Your task to perform on an android device: open app "DoorDash - Dasher" Image 0: 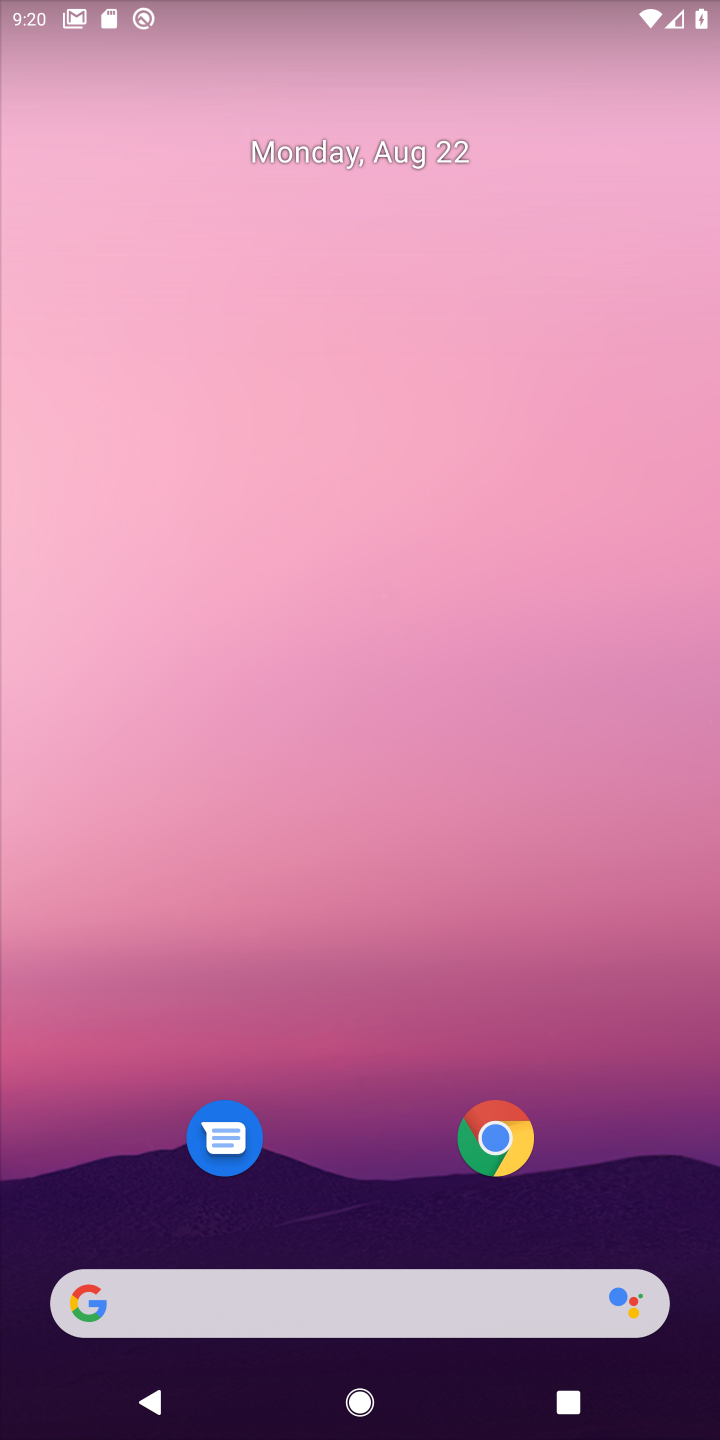
Step 0: drag from (384, 1209) to (365, 298)
Your task to perform on an android device: open app "DoorDash - Dasher" Image 1: 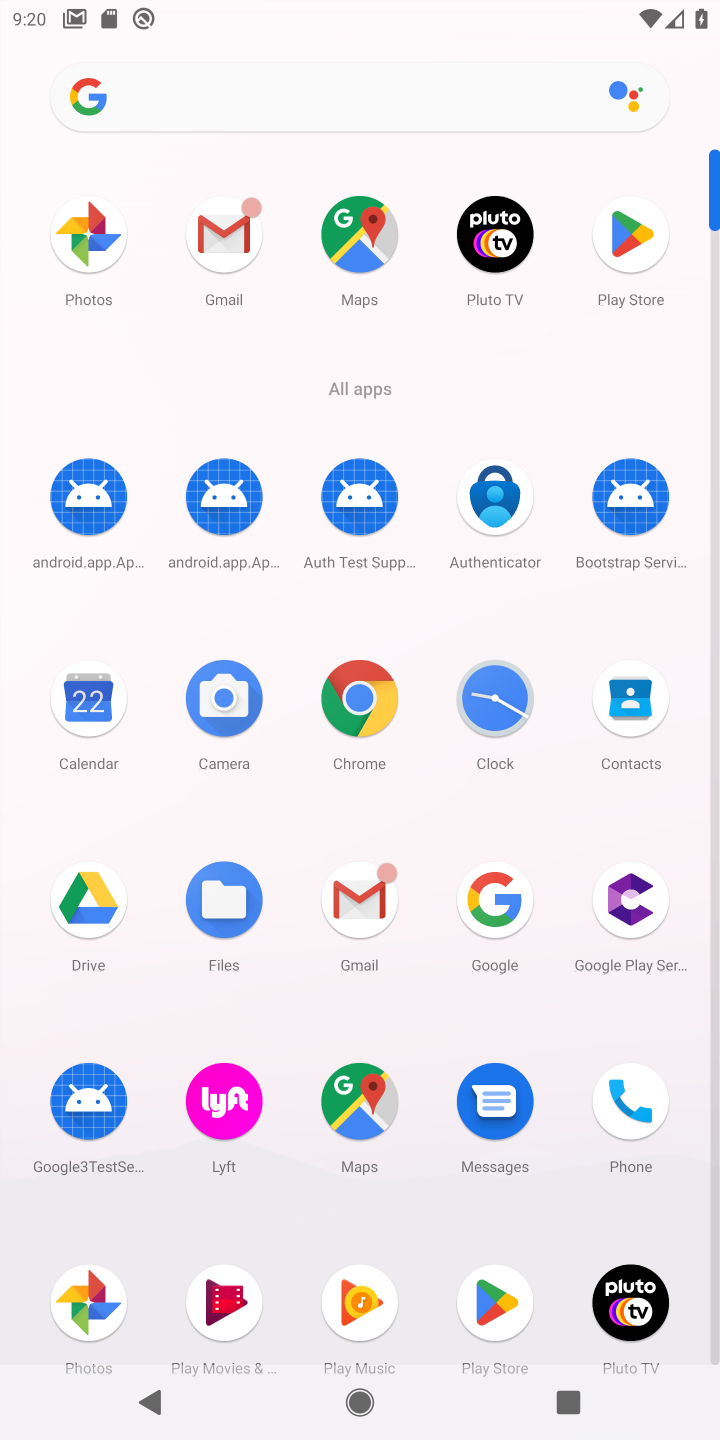
Step 1: click (471, 1297)
Your task to perform on an android device: open app "DoorDash - Dasher" Image 2: 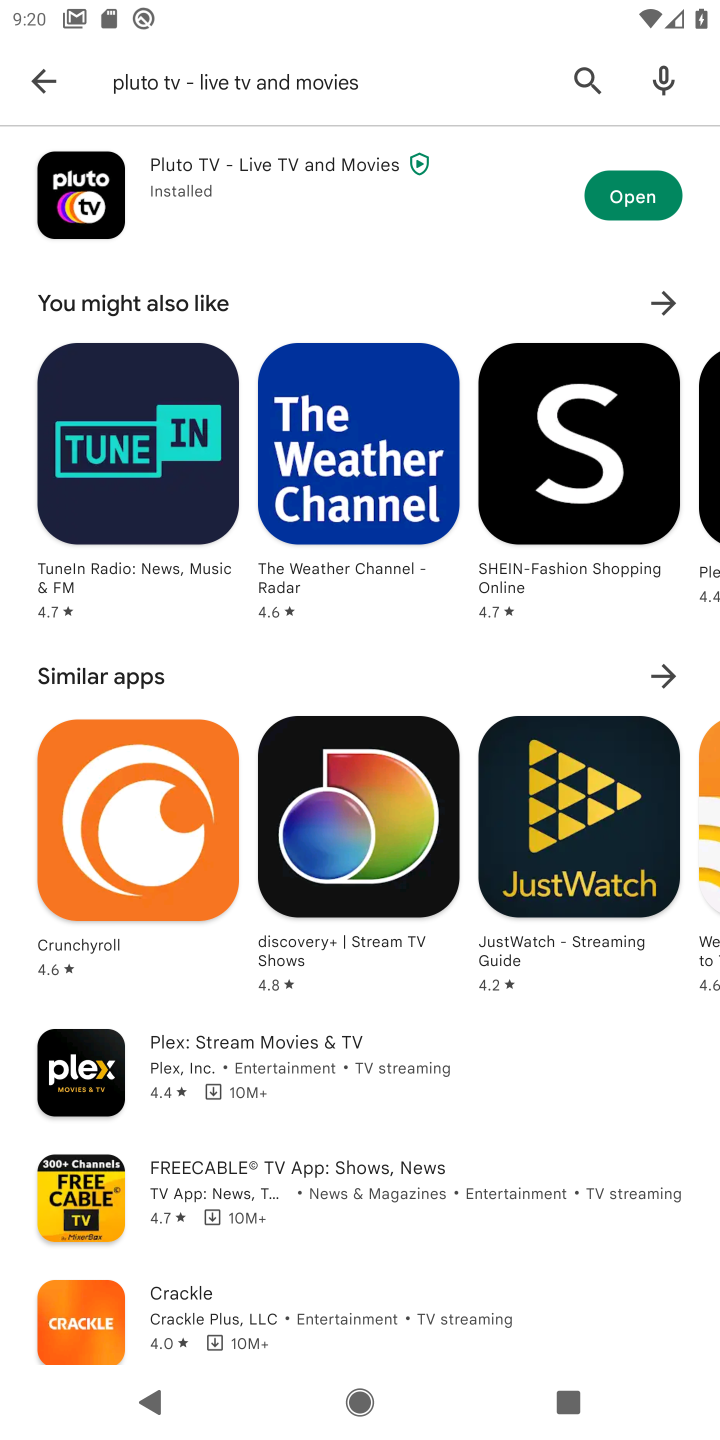
Step 2: click (31, 82)
Your task to perform on an android device: open app "DoorDash - Dasher" Image 3: 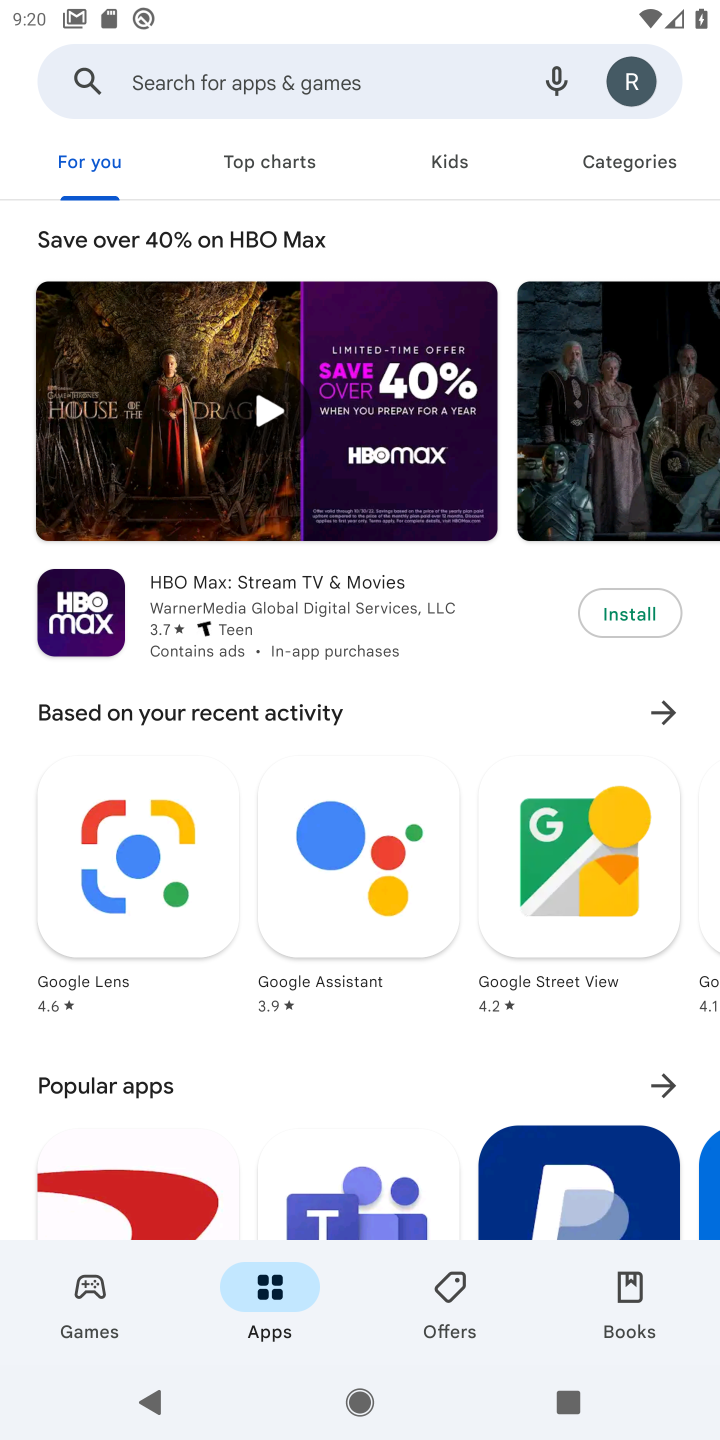
Step 3: click (343, 75)
Your task to perform on an android device: open app "DoorDash - Dasher" Image 4: 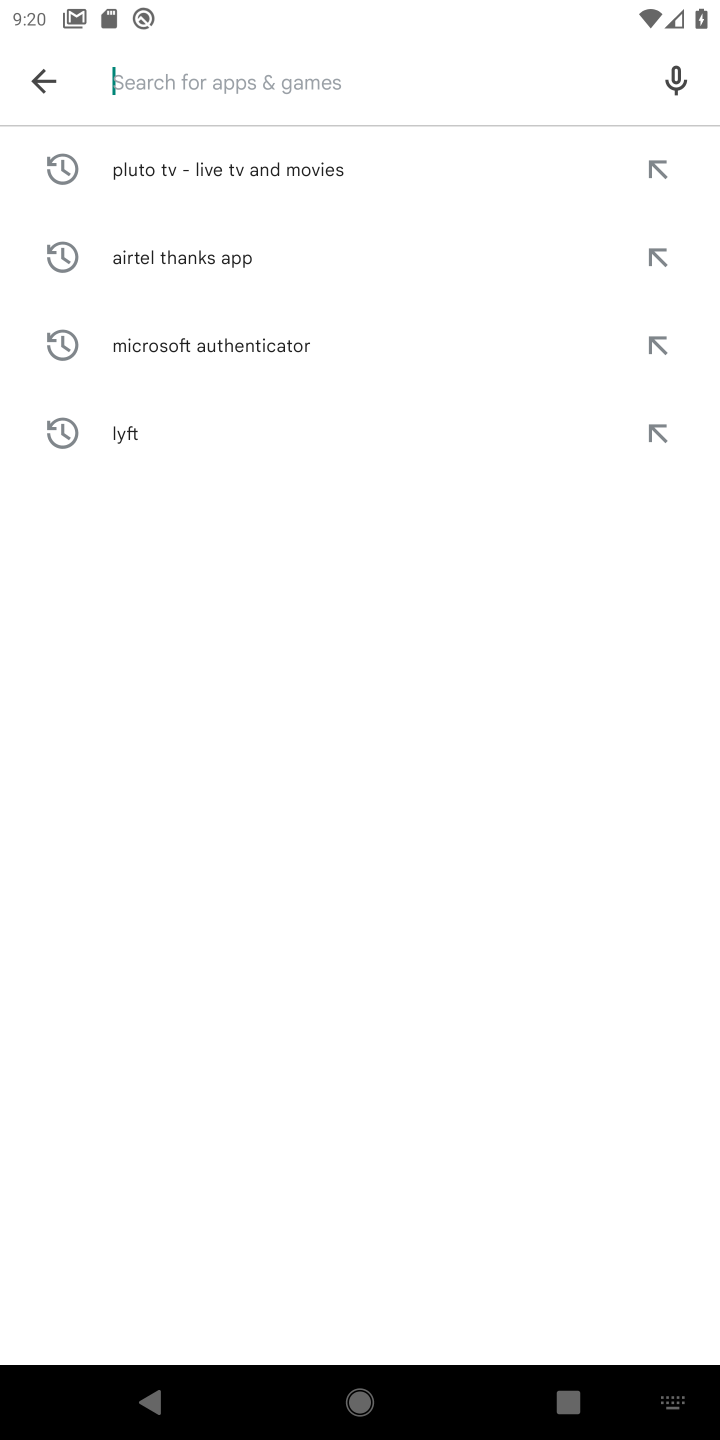
Step 4: drag from (588, 1326) to (666, 1402)
Your task to perform on an android device: open app "DoorDash - Dasher" Image 5: 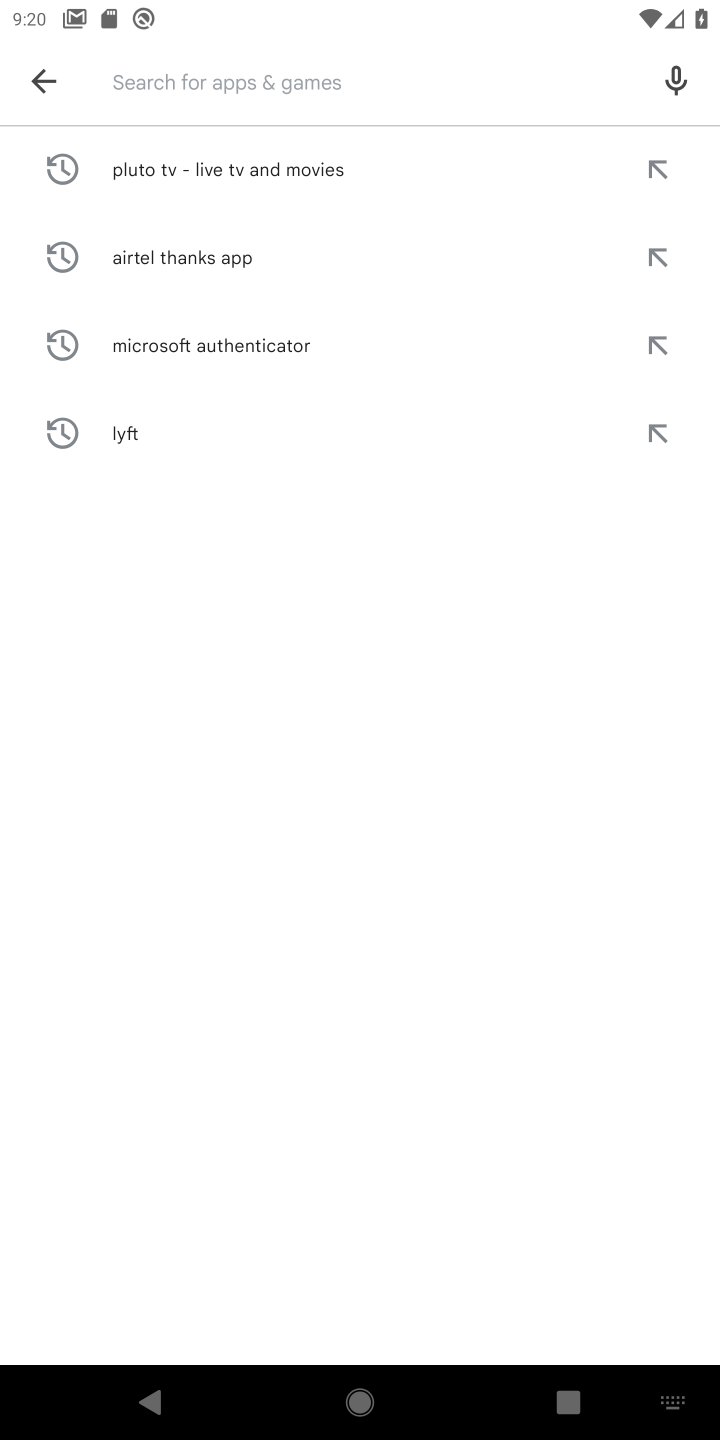
Step 5: type "DoorDash"
Your task to perform on an android device: open app "DoorDash - Dasher" Image 6: 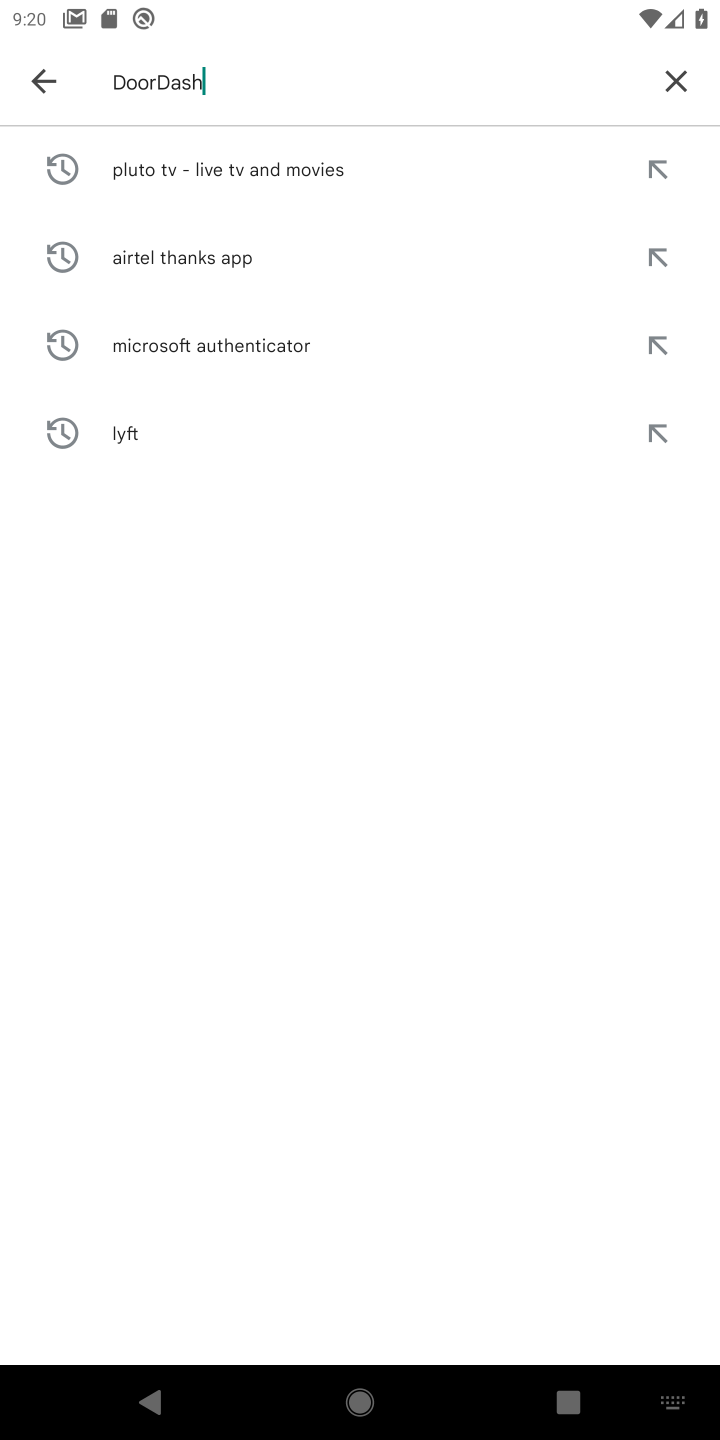
Step 6: type ""
Your task to perform on an android device: open app "DoorDash - Dasher" Image 7: 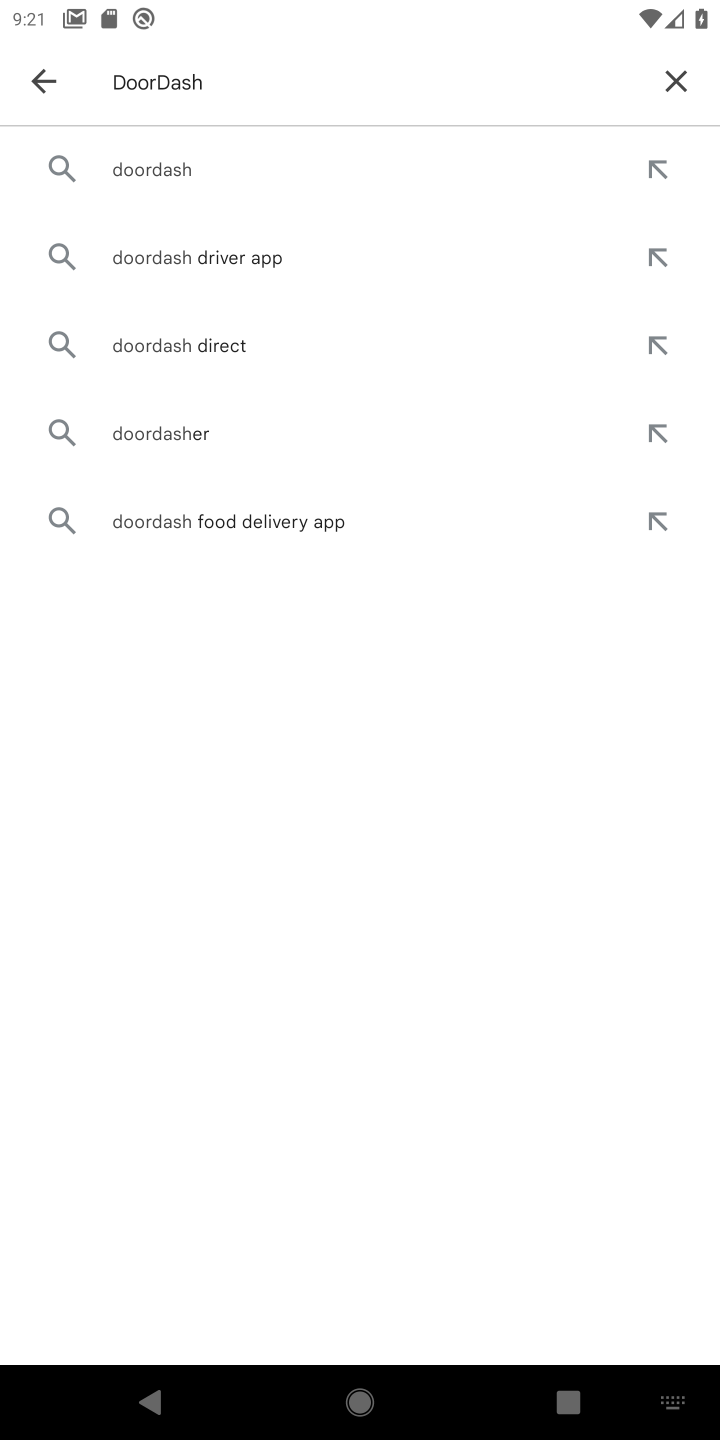
Step 7: click (168, 150)
Your task to perform on an android device: open app "DoorDash - Dasher" Image 8: 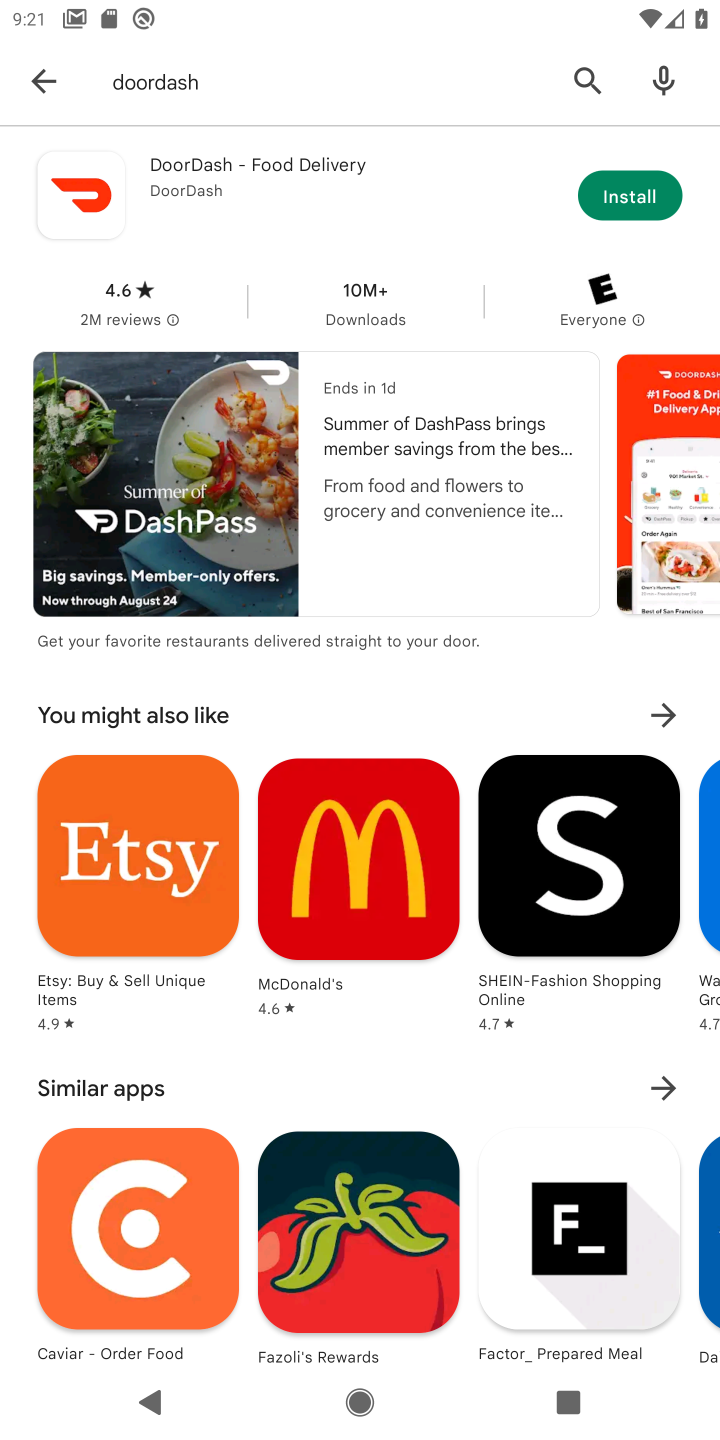
Step 8: click (624, 198)
Your task to perform on an android device: open app "DoorDash - Dasher" Image 9: 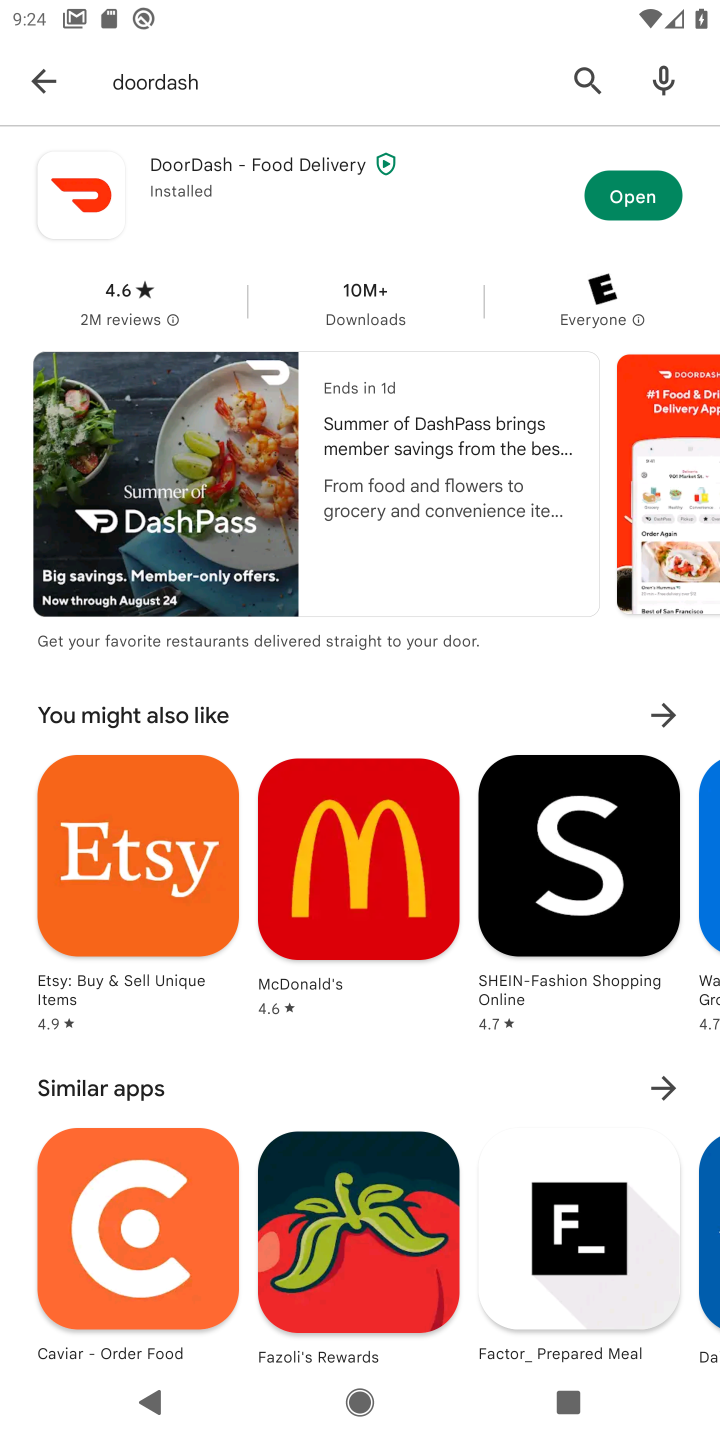
Step 9: click (625, 202)
Your task to perform on an android device: open app "DoorDash - Dasher" Image 10: 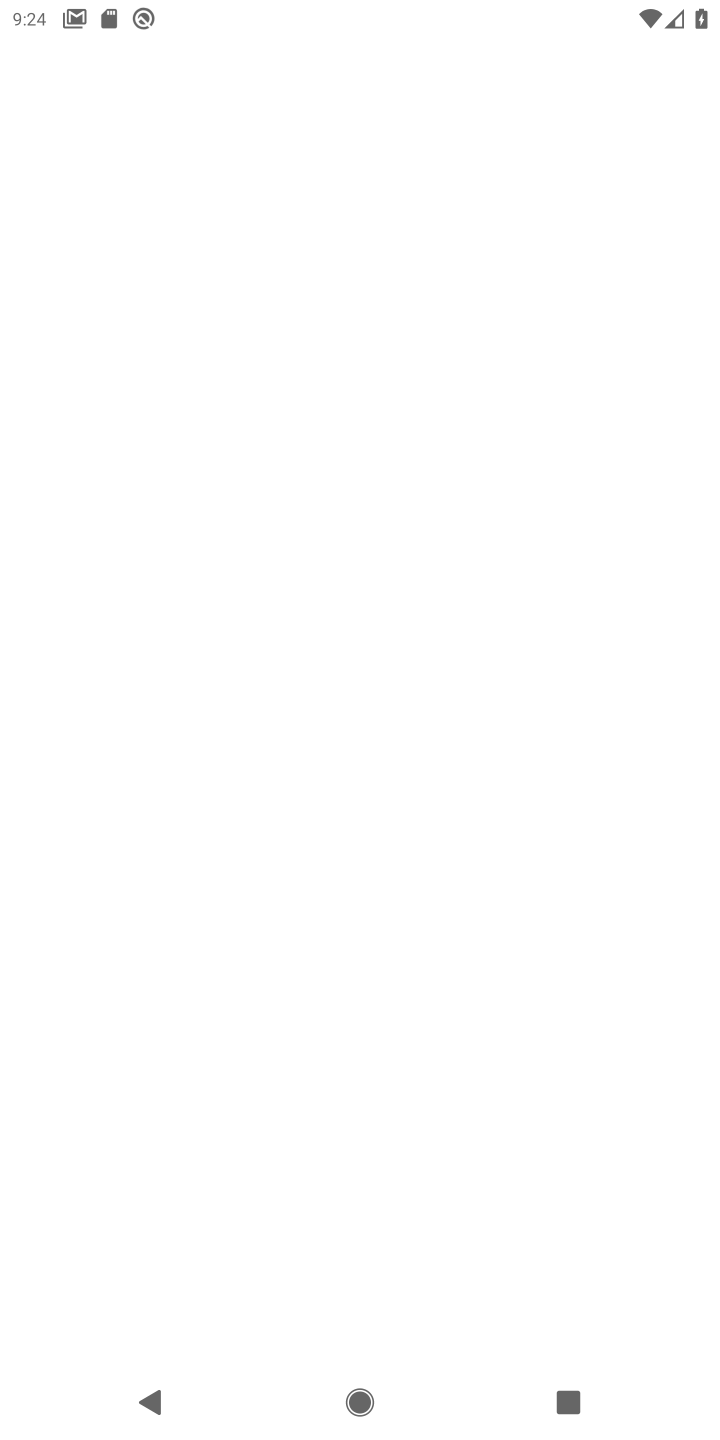
Step 10: task complete